Your task to perform on an android device: change the clock display to analog Image 0: 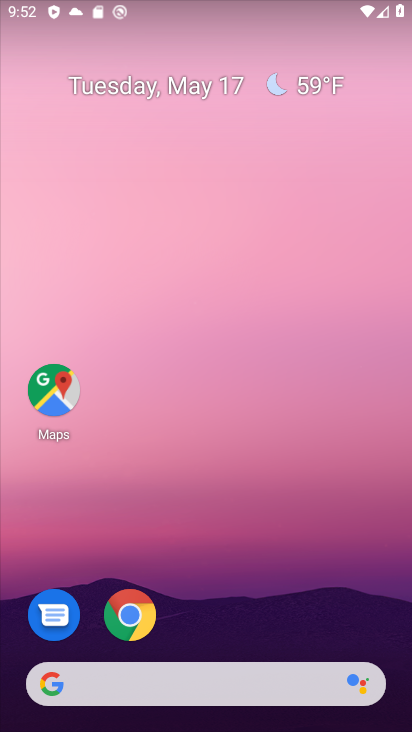
Step 0: drag from (254, 599) to (232, 284)
Your task to perform on an android device: change the clock display to analog Image 1: 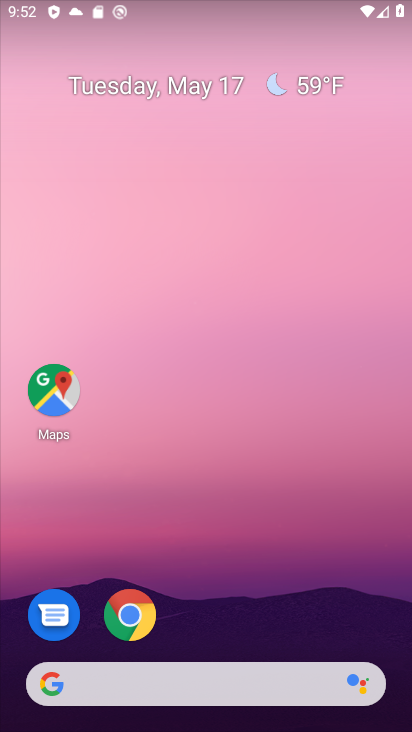
Step 1: drag from (229, 628) to (221, 215)
Your task to perform on an android device: change the clock display to analog Image 2: 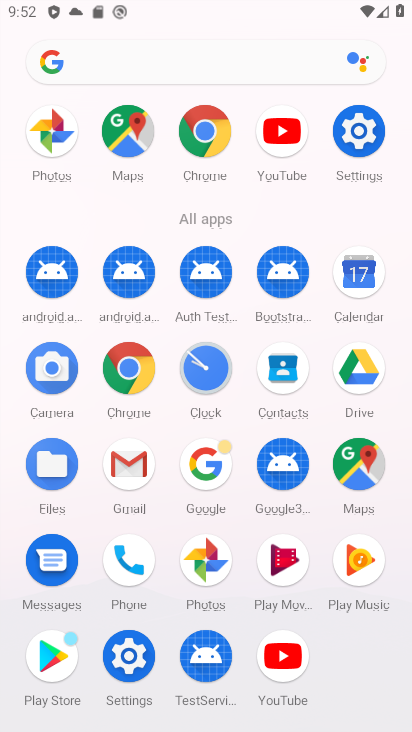
Step 2: click (210, 357)
Your task to perform on an android device: change the clock display to analog Image 3: 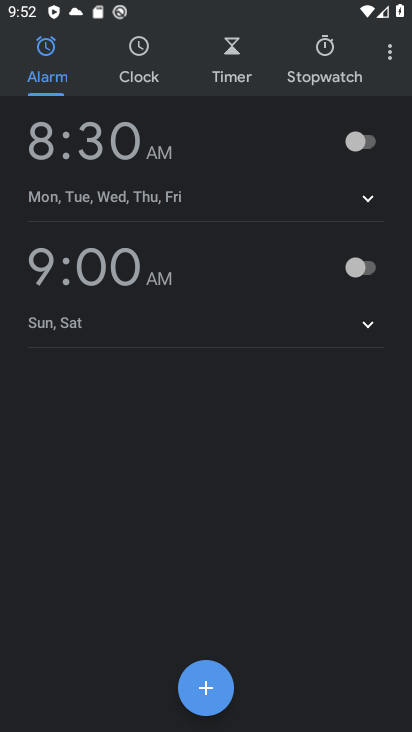
Step 3: click (390, 59)
Your task to perform on an android device: change the clock display to analog Image 4: 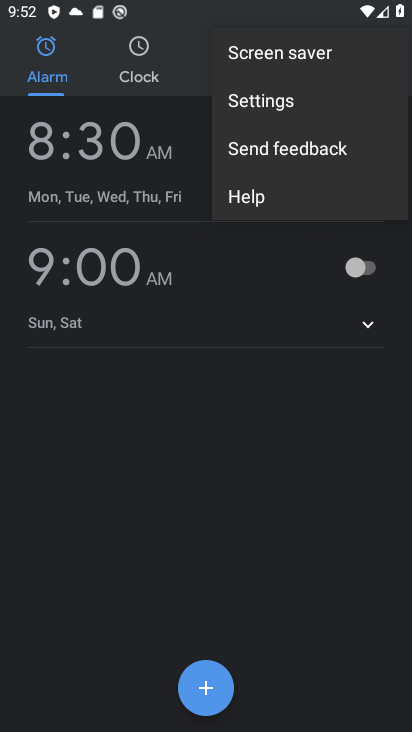
Step 4: click (321, 99)
Your task to perform on an android device: change the clock display to analog Image 5: 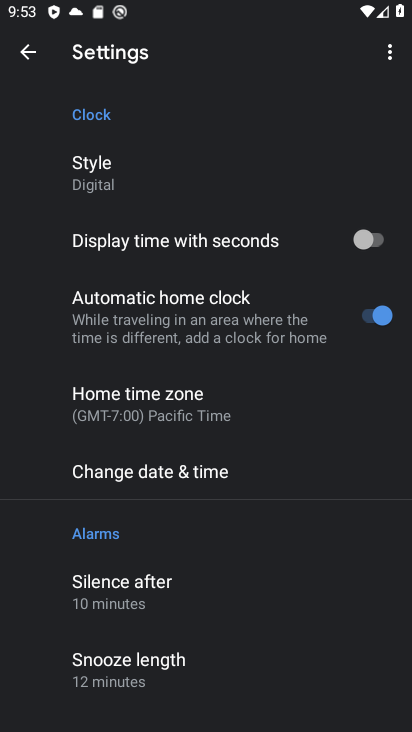
Step 5: click (106, 182)
Your task to perform on an android device: change the clock display to analog Image 6: 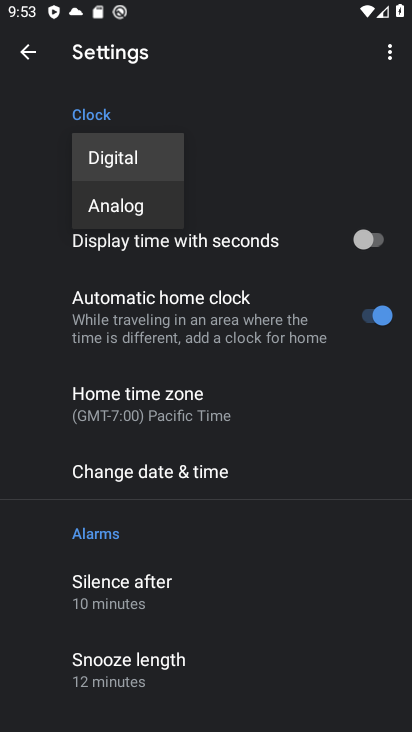
Step 6: click (131, 215)
Your task to perform on an android device: change the clock display to analog Image 7: 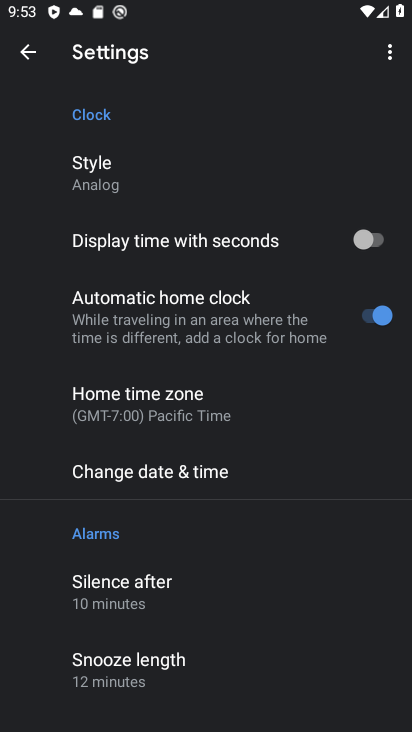
Step 7: task complete